Your task to perform on an android device: Do I have any events tomorrow? Image 0: 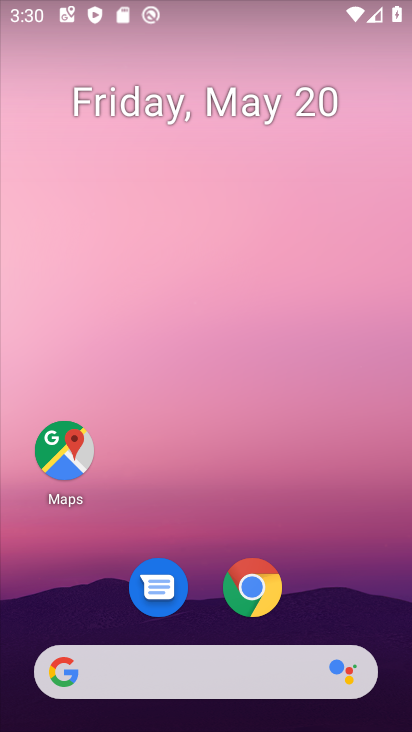
Step 0: drag from (317, 558) to (305, 45)
Your task to perform on an android device: Do I have any events tomorrow? Image 1: 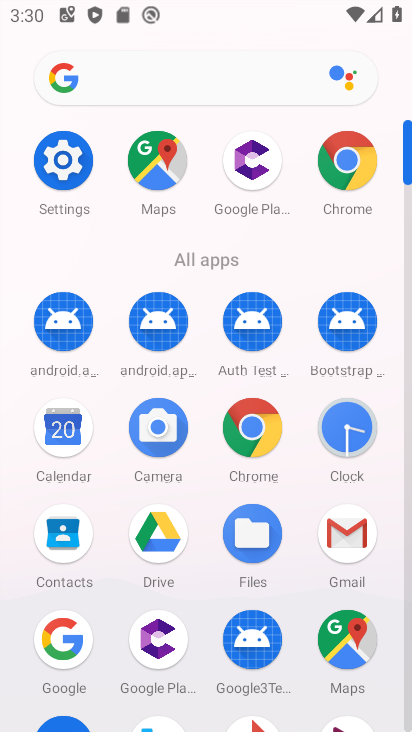
Step 1: drag from (25, 525) to (14, 268)
Your task to perform on an android device: Do I have any events tomorrow? Image 2: 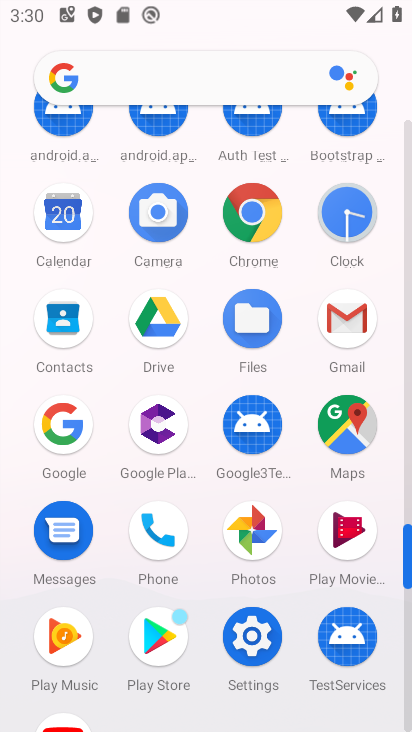
Step 2: drag from (8, 486) to (15, 291)
Your task to perform on an android device: Do I have any events tomorrow? Image 3: 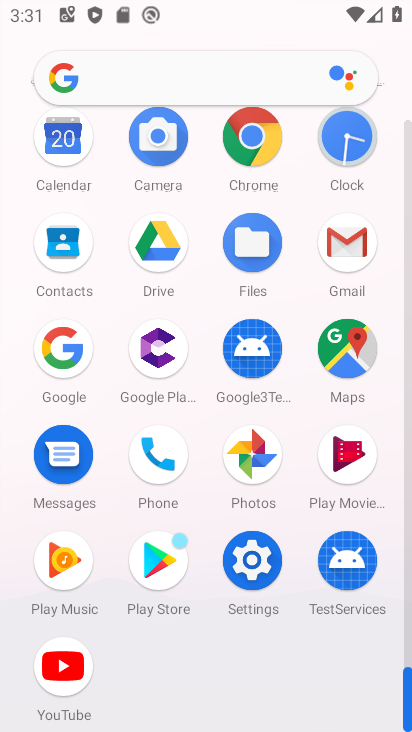
Step 3: drag from (15, 171) to (13, 429)
Your task to perform on an android device: Do I have any events tomorrow? Image 4: 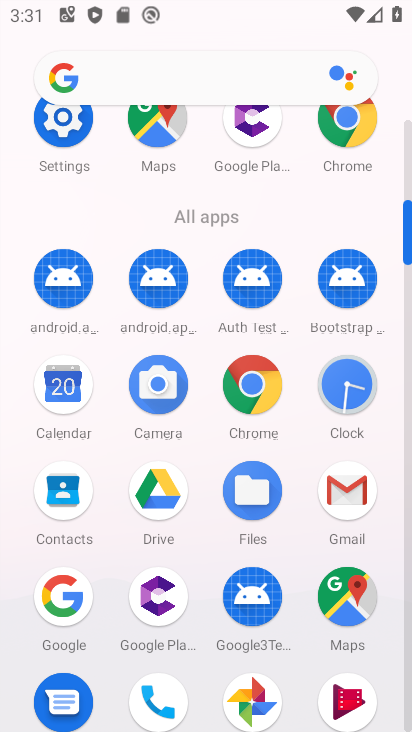
Step 4: click (66, 379)
Your task to perform on an android device: Do I have any events tomorrow? Image 5: 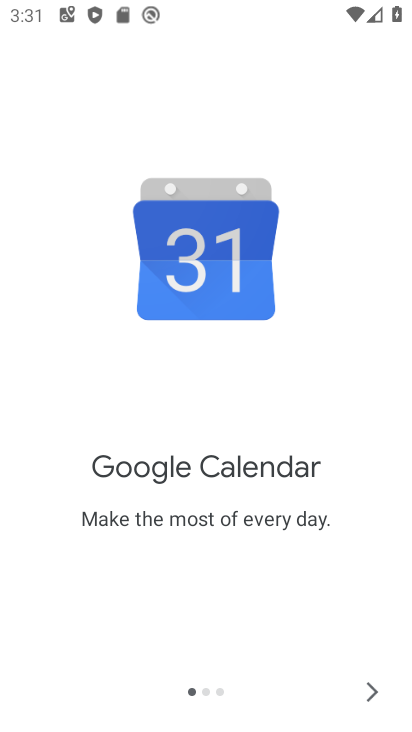
Step 5: click (372, 693)
Your task to perform on an android device: Do I have any events tomorrow? Image 6: 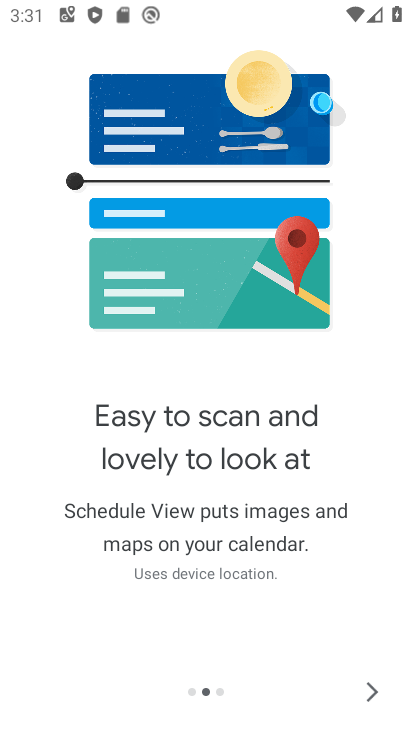
Step 6: click (372, 693)
Your task to perform on an android device: Do I have any events tomorrow? Image 7: 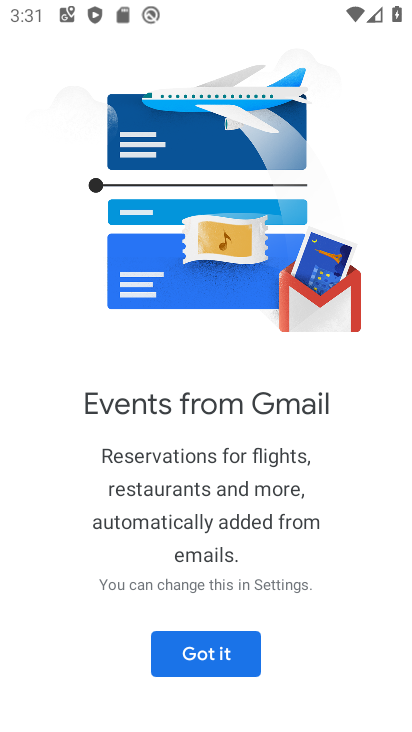
Step 7: click (207, 657)
Your task to perform on an android device: Do I have any events tomorrow? Image 8: 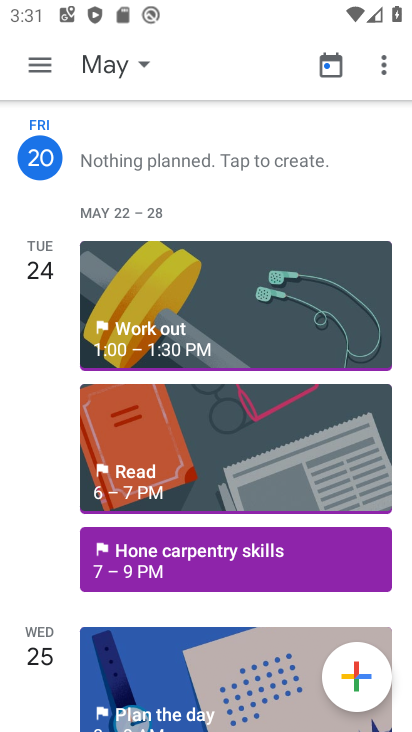
Step 8: click (33, 67)
Your task to perform on an android device: Do I have any events tomorrow? Image 9: 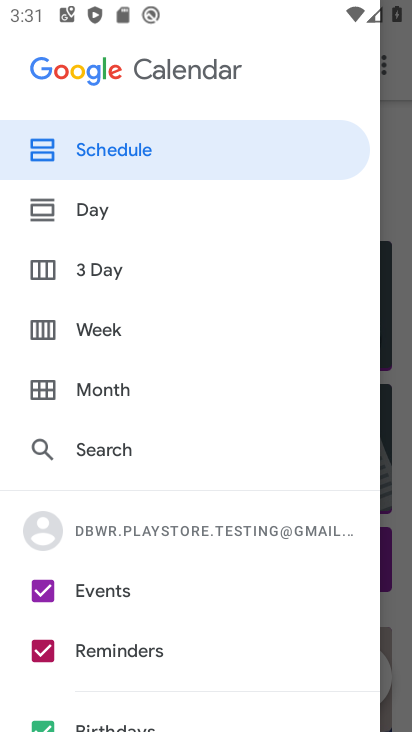
Step 9: click (231, 145)
Your task to perform on an android device: Do I have any events tomorrow? Image 10: 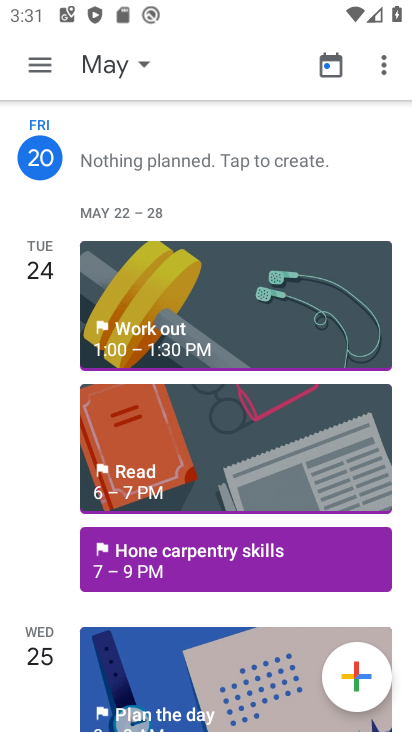
Step 10: click (37, 62)
Your task to perform on an android device: Do I have any events tomorrow? Image 11: 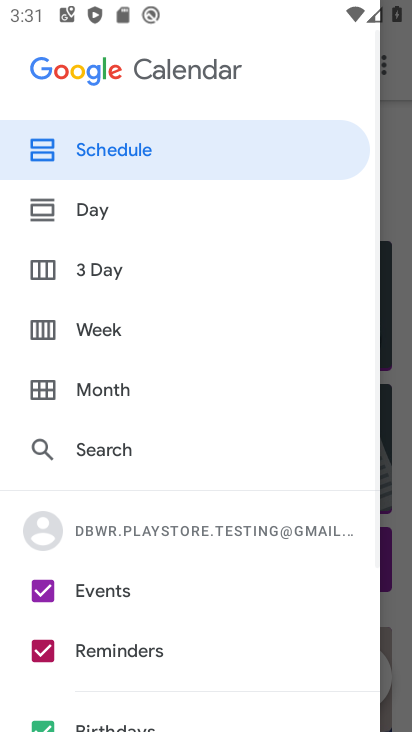
Step 11: click (388, 74)
Your task to perform on an android device: Do I have any events tomorrow? Image 12: 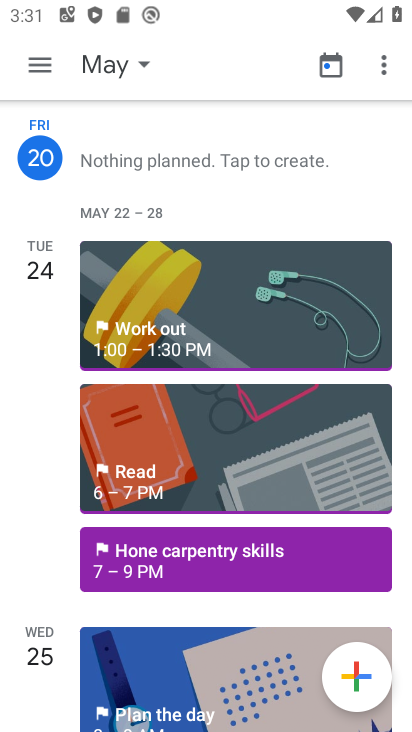
Step 12: click (124, 67)
Your task to perform on an android device: Do I have any events tomorrow? Image 13: 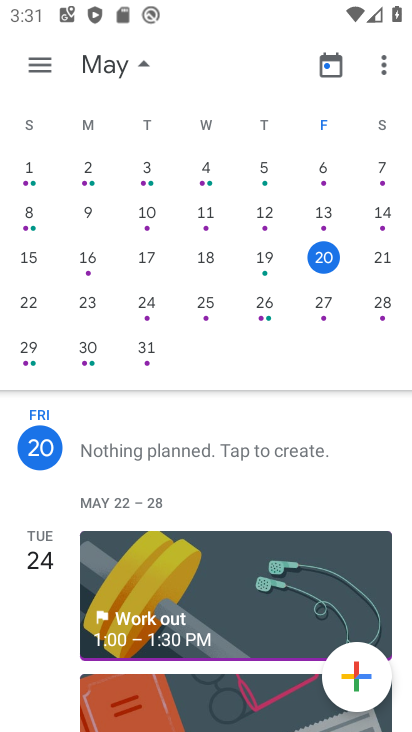
Step 13: click (385, 246)
Your task to perform on an android device: Do I have any events tomorrow? Image 14: 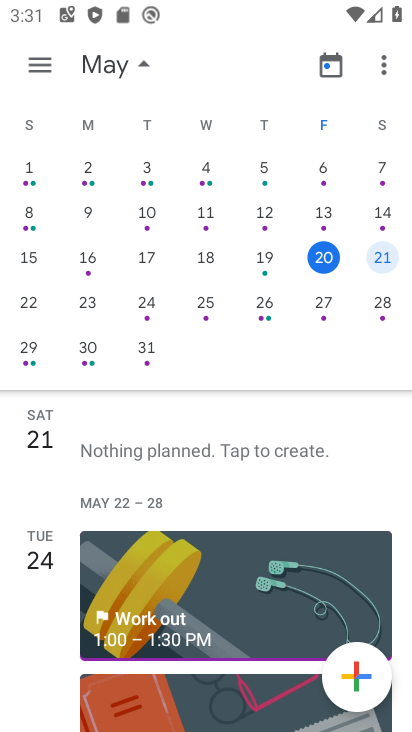
Step 14: click (53, 59)
Your task to perform on an android device: Do I have any events tomorrow? Image 15: 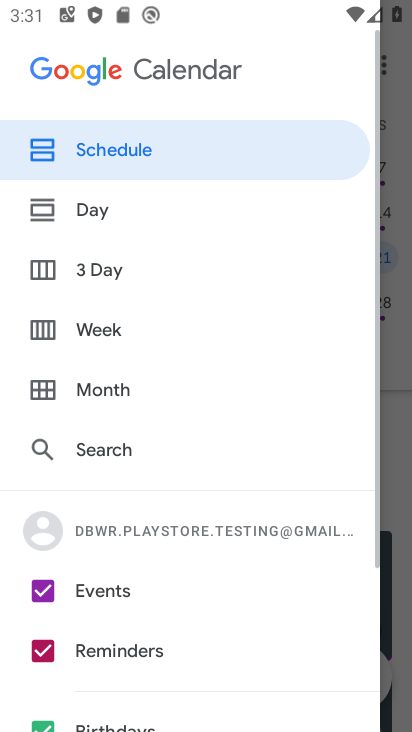
Step 15: click (87, 198)
Your task to perform on an android device: Do I have any events tomorrow? Image 16: 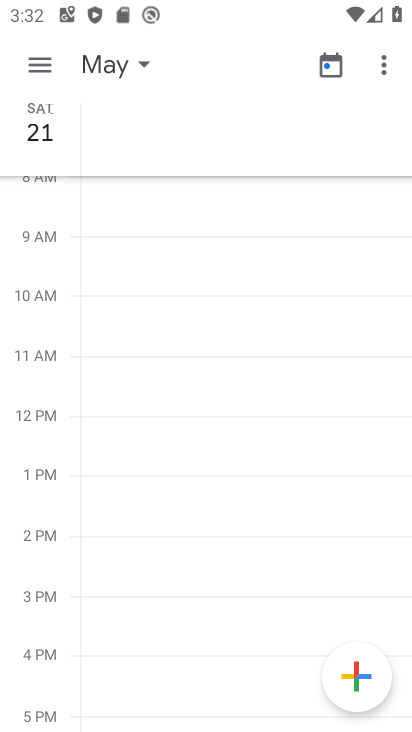
Step 16: task complete